Your task to perform on an android device: Open the stopwatch Image 0: 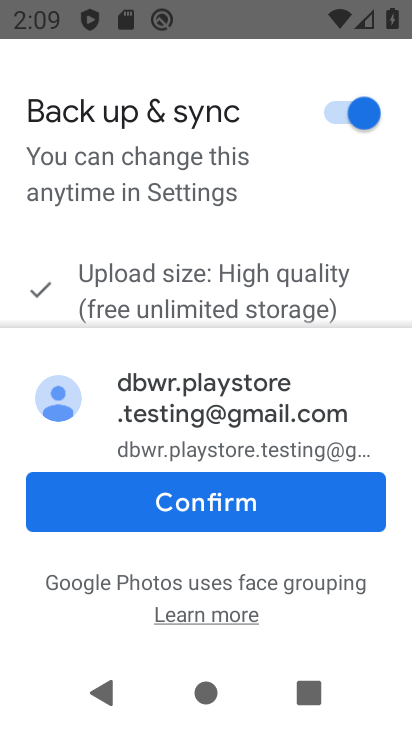
Step 0: press back button
Your task to perform on an android device: Open the stopwatch Image 1: 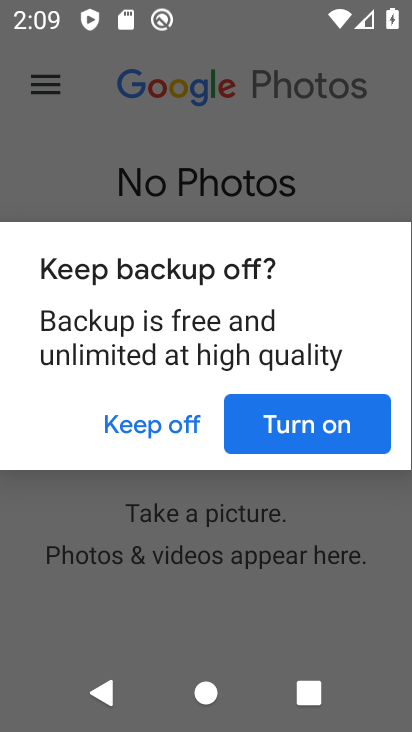
Step 1: press back button
Your task to perform on an android device: Open the stopwatch Image 2: 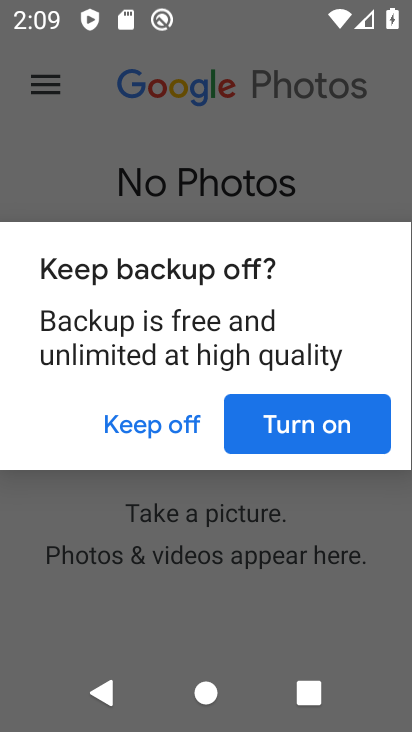
Step 2: press home button
Your task to perform on an android device: Open the stopwatch Image 3: 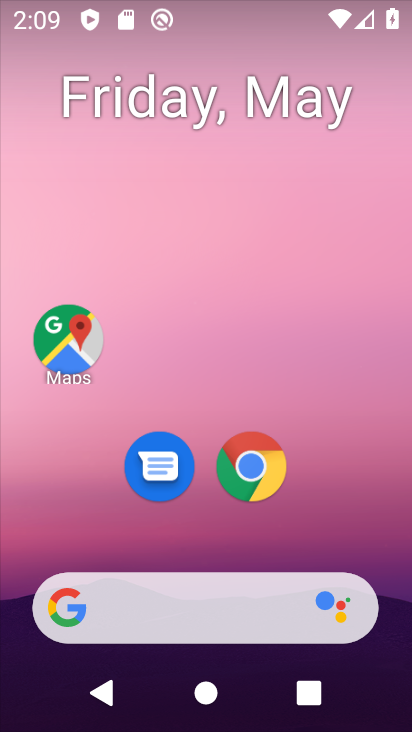
Step 3: drag from (217, 534) to (371, 36)
Your task to perform on an android device: Open the stopwatch Image 4: 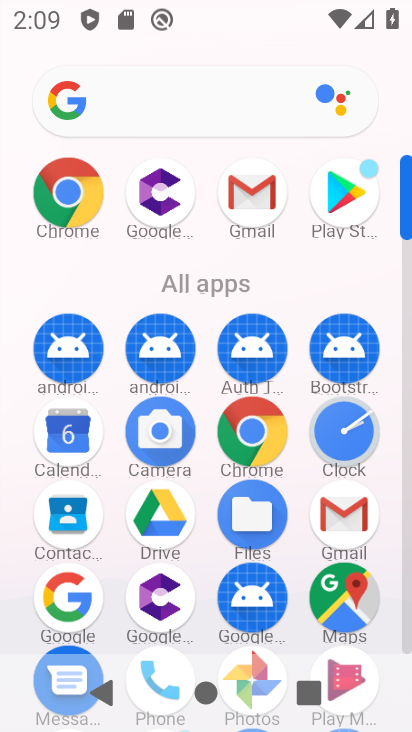
Step 4: click (347, 434)
Your task to perform on an android device: Open the stopwatch Image 5: 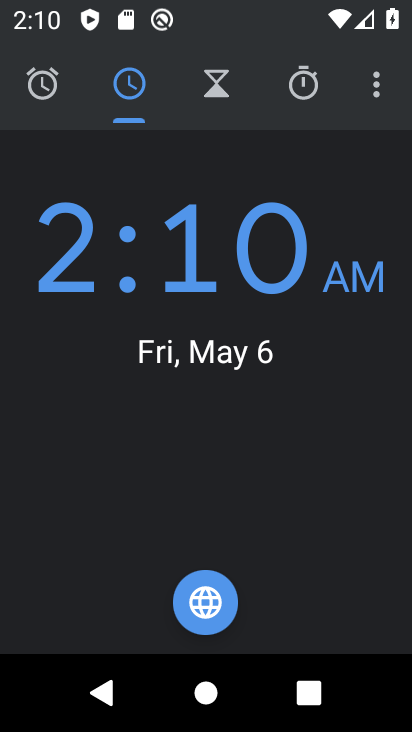
Step 5: click (307, 87)
Your task to perform on an android device: Open the stopwatch Image 6: 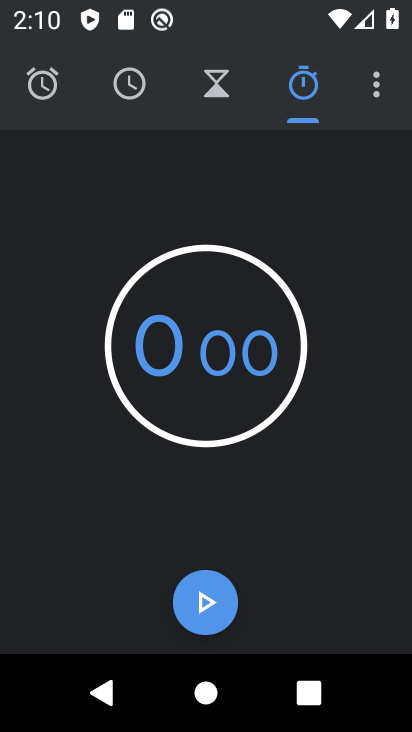
Step 6: task complete